Your task to perform on an android device: Open Chrome and go to settings Image 0: 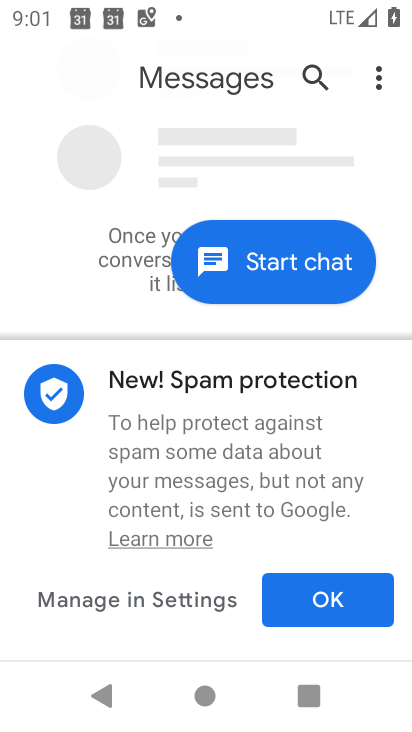
Step 0: press home button
Your task to perform on an android device: Open Chrome and go to settings Image 1: 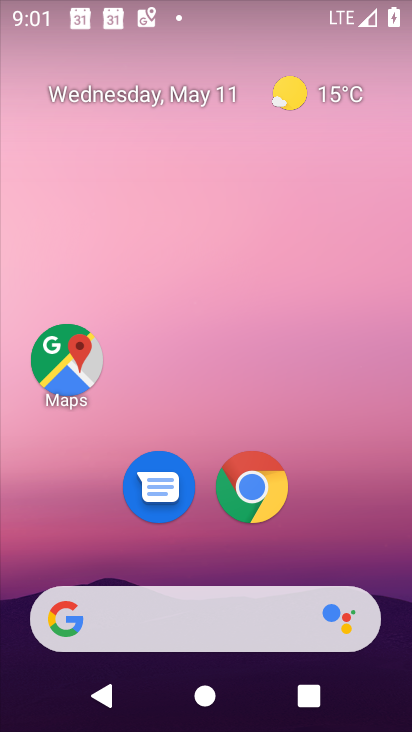
Step 1: drag from (289, 644) to (156, 143)
Your task to perform on an android device: Open Chrome and go to settings Image 2: 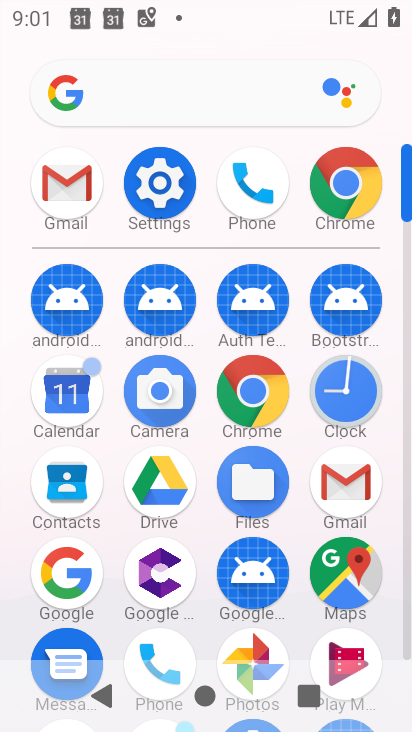
Step 2: click (157, 171)
Your task to perform on an android device: Open Chrome and go to settings Image 3: 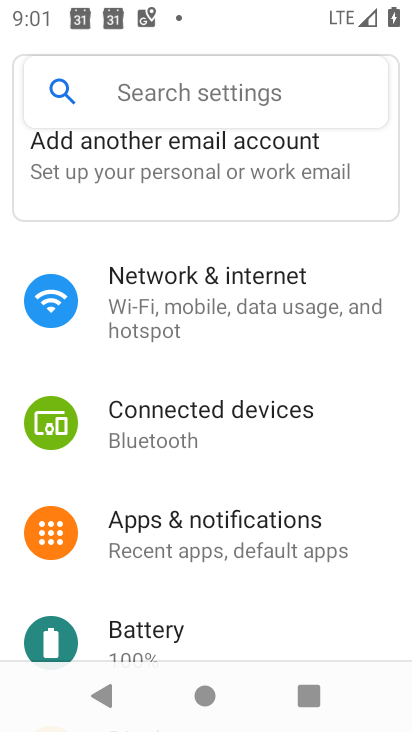
Step 3: press home button
Your task to perform on an android device: Open Chrome and go to settings Image 4: 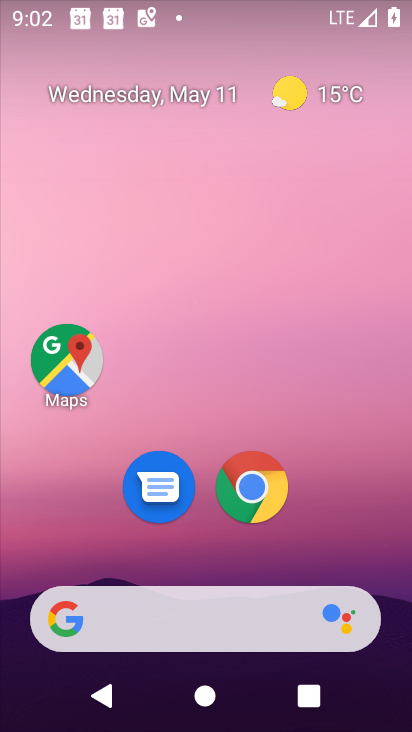
Step 4: drag from (243, 677) to (197, 194)
Your task to perform on an android device: Open Chrome and go to settings Image 5: 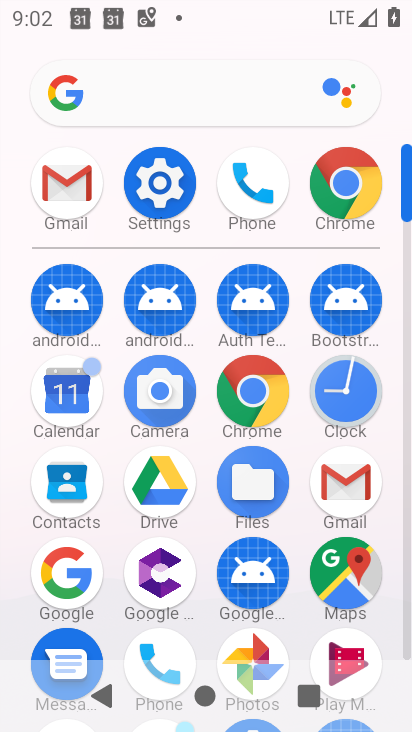
Step 5: click (352, 197)
Your task to perform on an android device: Open Chrome and go to settings Image 6: 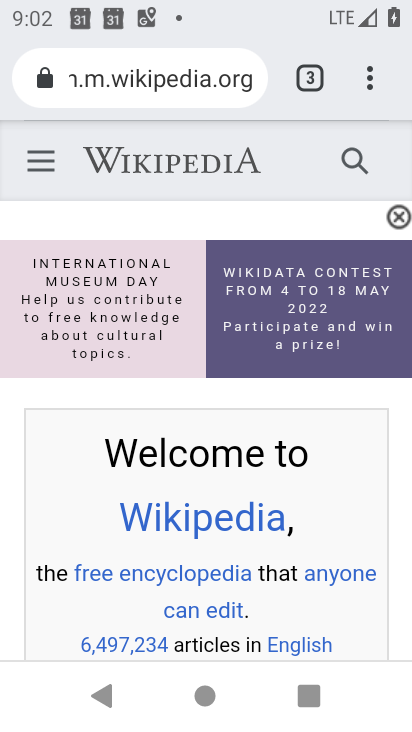
Step 6: click (364, 74)
Your task to perform on an android device: Open Chrome and go to settings Image 7: 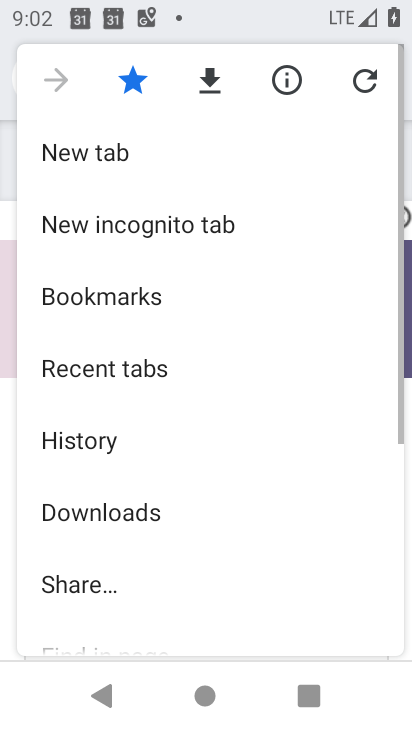
Step 7: drag from (159, 585) to (212, 262)
Your task to perform on an android device: Open Chrome and go to settings Image 8: 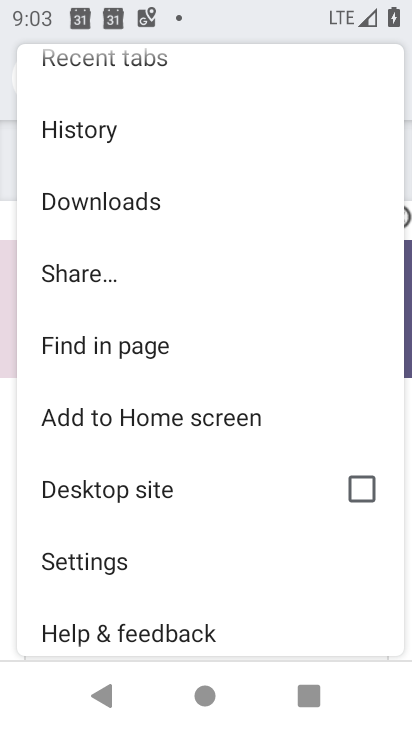
Step 8: click (117, 552)
Your task to perform on an android device: Open Chrome and go to settings Image 9: 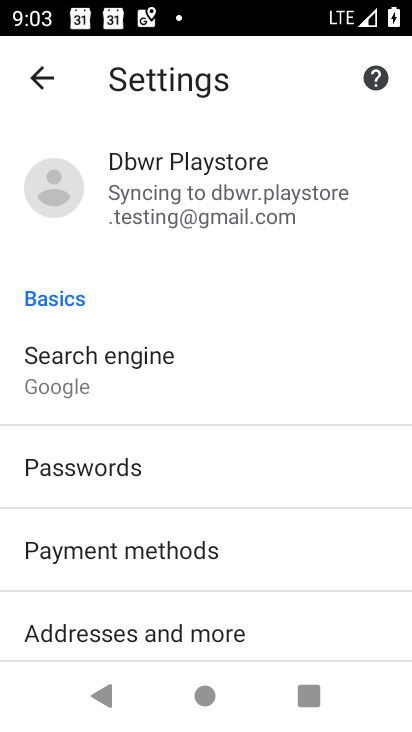
Step 9: task complete